Your task to perform on an android device: turn off sleep mode Image 0: 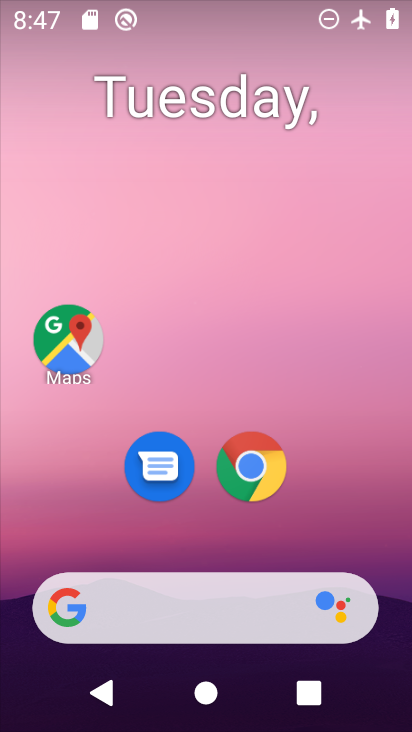
Step 0: drag from (193, 546) to (155, 27)
Your task to perform on an android device: turn off sleep mode Image 1: 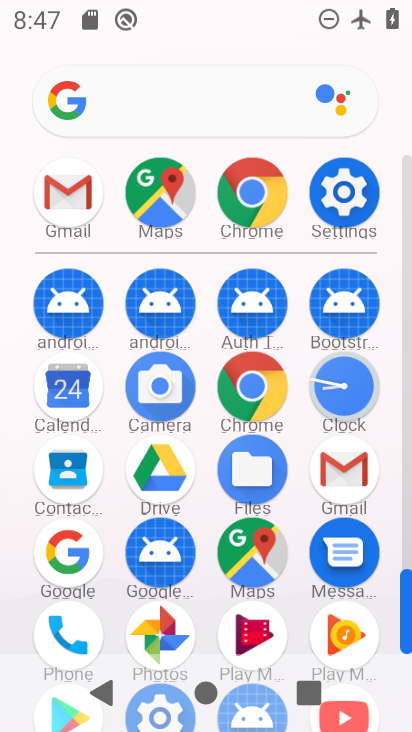
Step 1: click (352, 200)
Your task to perform on an android device: turn off sleep mode Image 2: 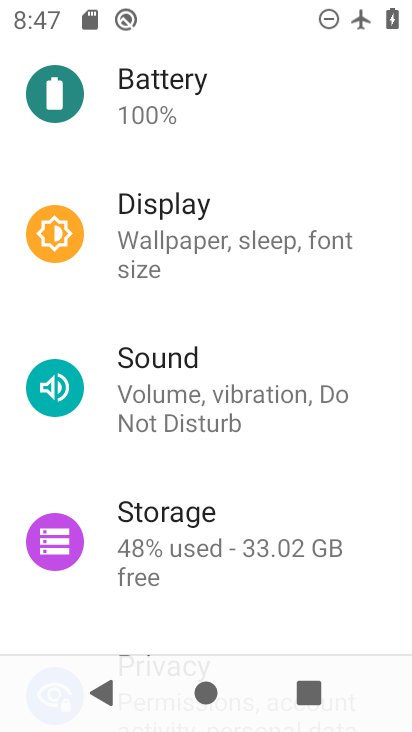
Step 2: drag from (284, 168) to (261, 574)
Your task to perform on an android device: turn off sleep mode Image 3: 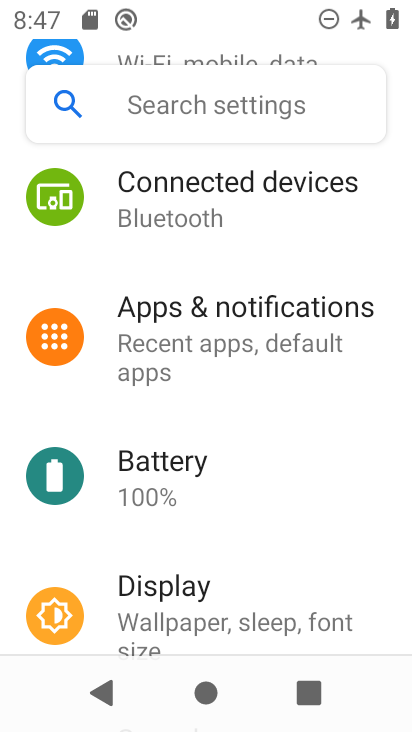
Step 3: click (206, 116)
Your task to perform on an android device: turn off sleep mode Image 4: 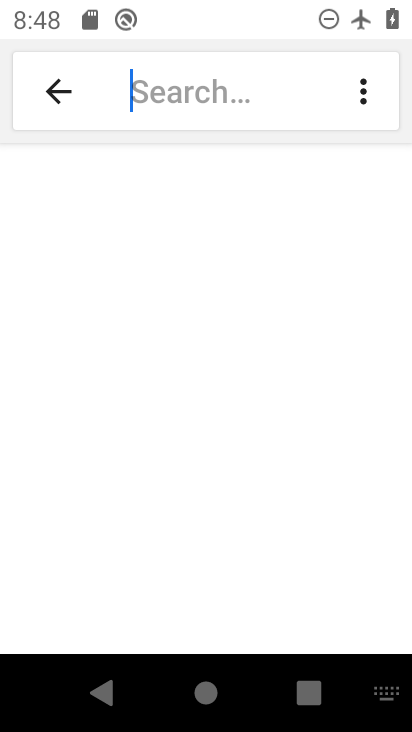
Step 4: type "sleep mode"
Your task to perform on an android device: turn off sleep mode Image 5: 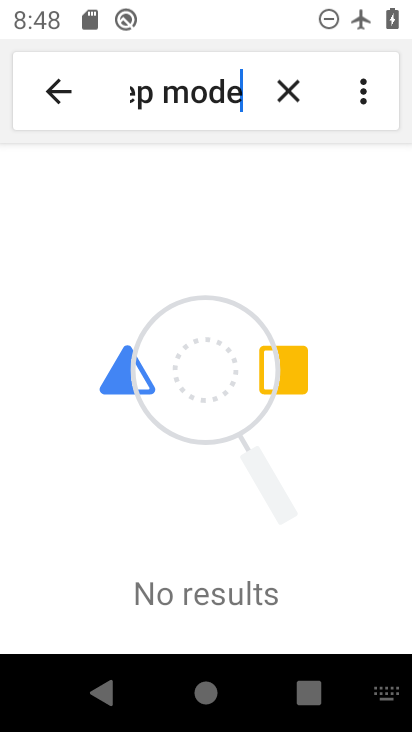
Step 5: task complete